Your task to perform on an android device: Show me recent news Image 0: 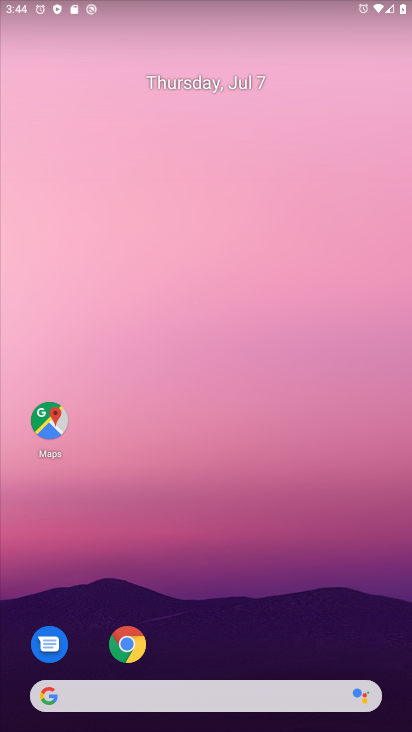
Step 0: drag from (332, 538) to (339, 8)
Your task to perform on an android device: Show me recent news Image 1: 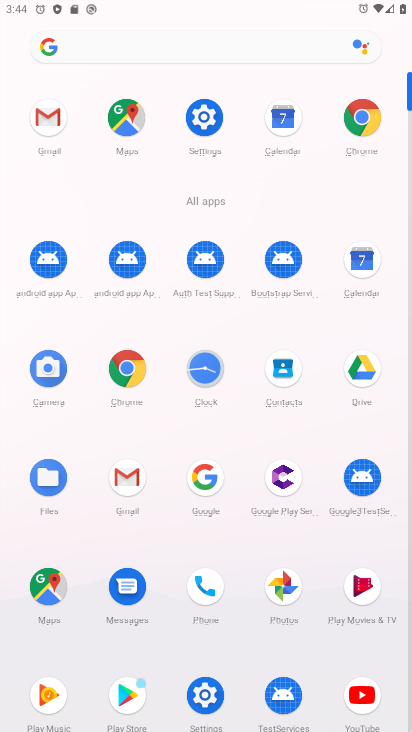
Step 1: click (360, 117)
Your task to perform on an android device: Show me recent news Image 2: 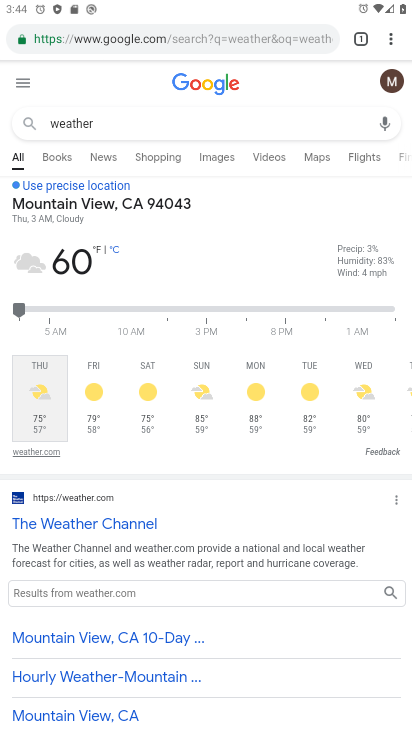
Step 2: click (291, 30)
Your task to perform on an android device: Show me recent news Image 3: 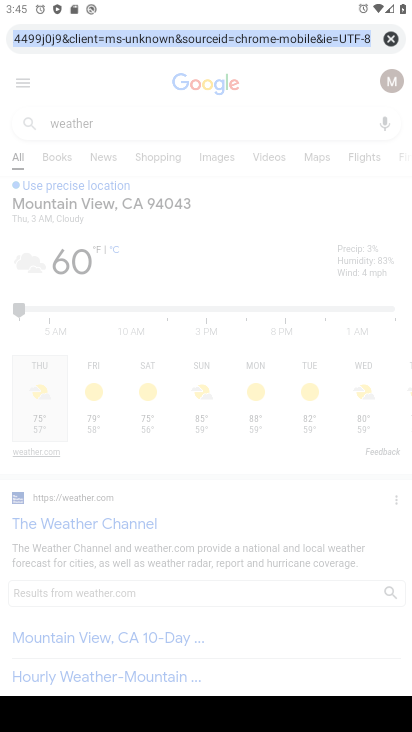
Step 3: type "show me recant news"
Your task to perform on an android device: Show me recent news Image 4: 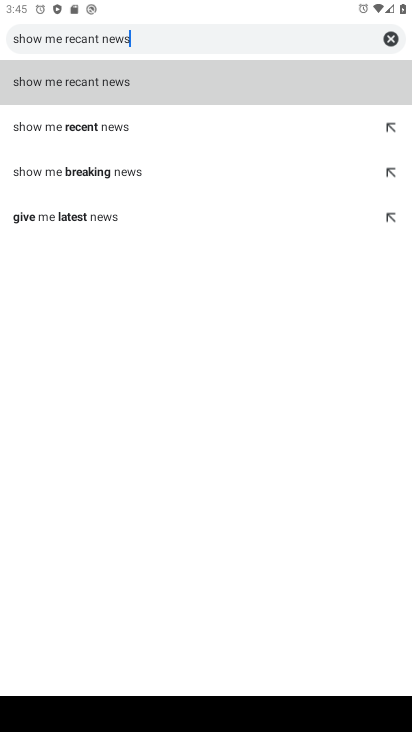
Step 4: click (110, 117)
Your task to perform on an android device: Show me recent news Image 5: 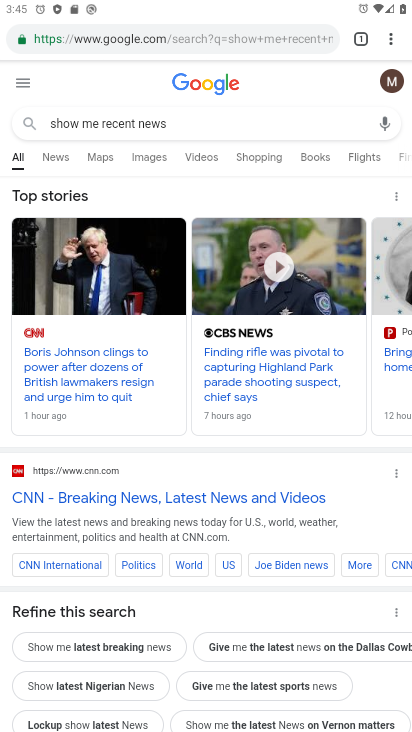
Step 5: task complete